Your task to perform on an android device: Go to notification settings Image 0: 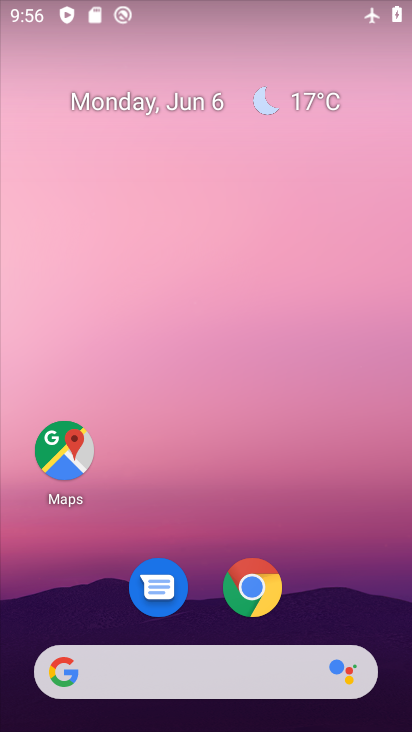
Step 0: drag from (323, 622) to (261, 37)
Your task to perform on an android device: Go to notification settings Image 1: 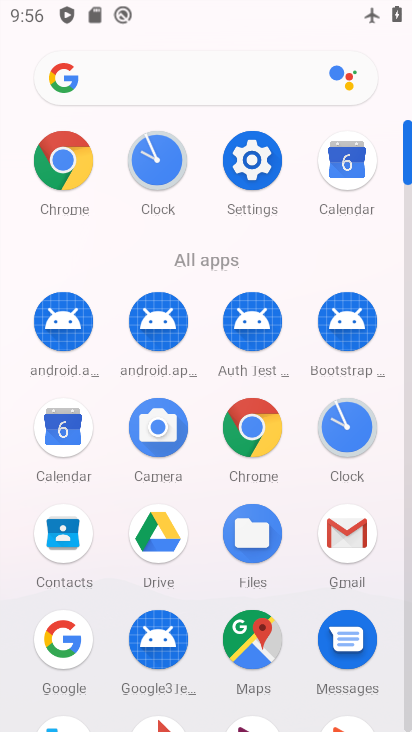
Step 1: click (264, 176)
Your task to perform on an android device: Go to notification settings Image 2: 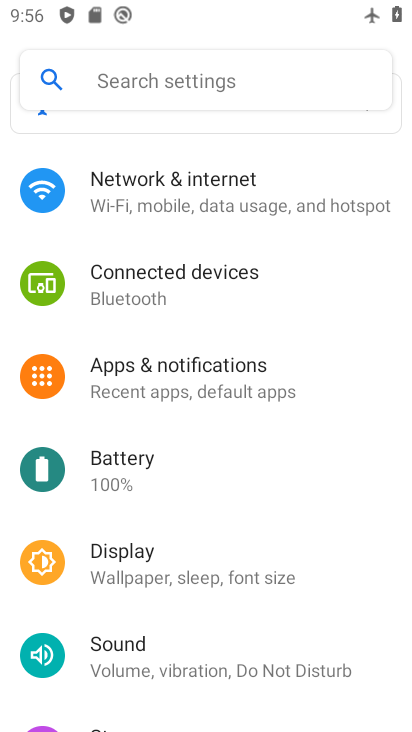
Step 2: click (233, 386)
Your task to perform on an android device: Go to notification settings Image 3: 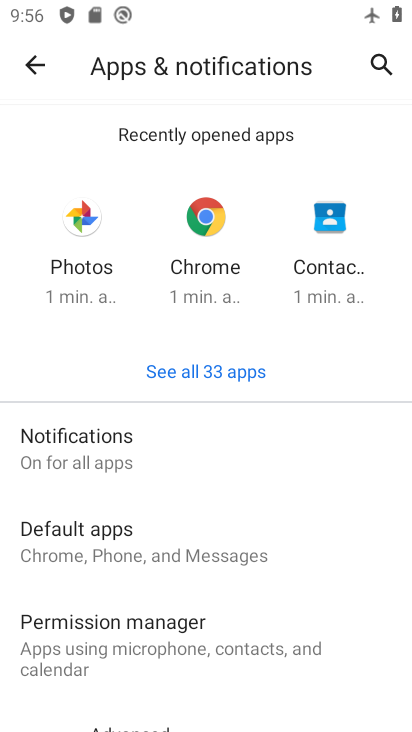
Step 3: click (212, 449)
Your task to perform on an android device: Go to notification settings Image 4: 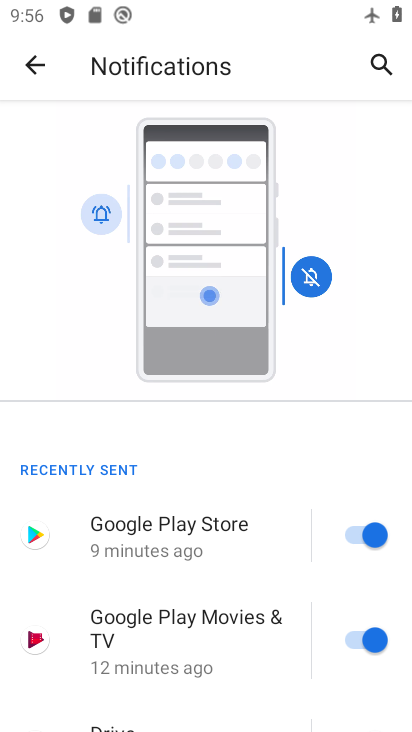
Step 4: task complete